Your task to perform on an android device: Go to network settings Image 0: 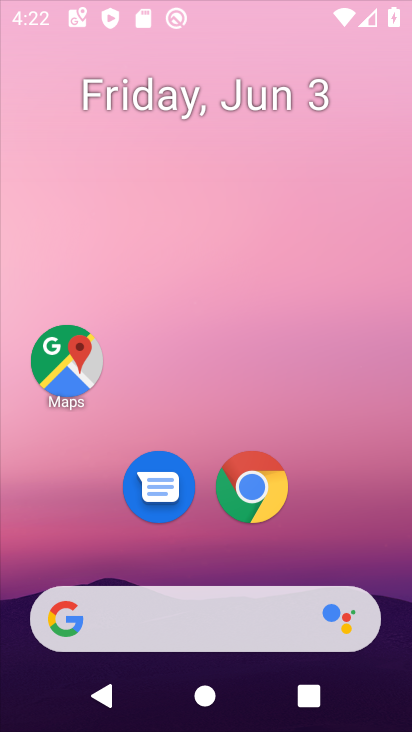
Step 0: click (244, 9)
Your task to perform on an android device: Go to network settings Image 1: 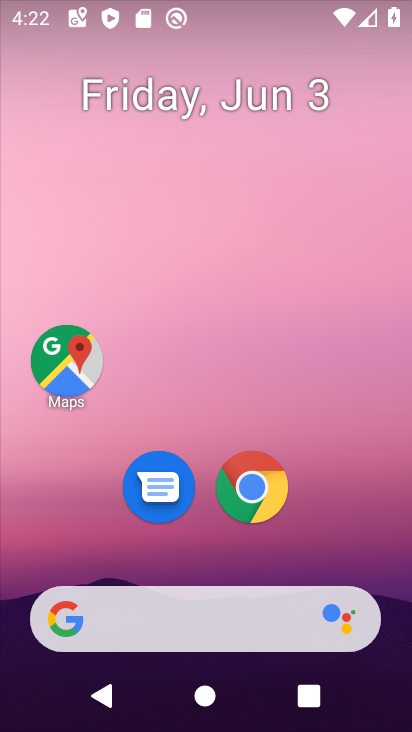
Step 1: drag from (192, 552) to (277, 165)
Your task to perform on an android device: Go to network settings Image 2: 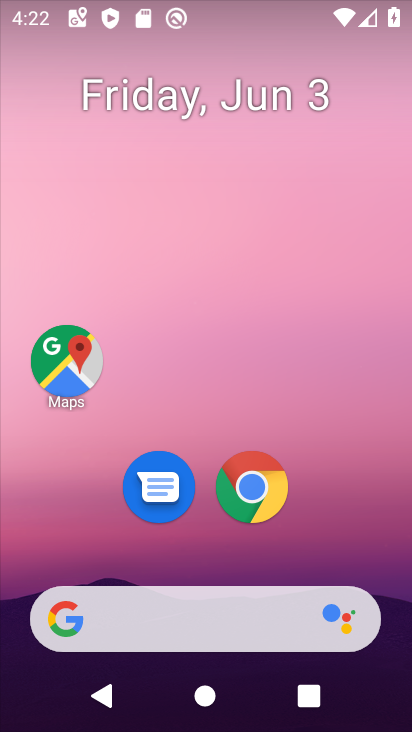
Step 2: drag from (230, 536) to (273, 169)
Your task to perform on an android device: Go to network settings Image 3: 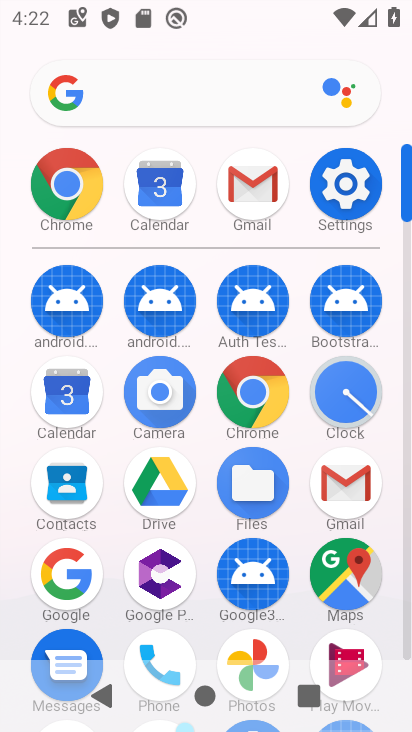
Step 3: click (353, 191)
Your task to perform on an android device: Go to network settings Image 4: 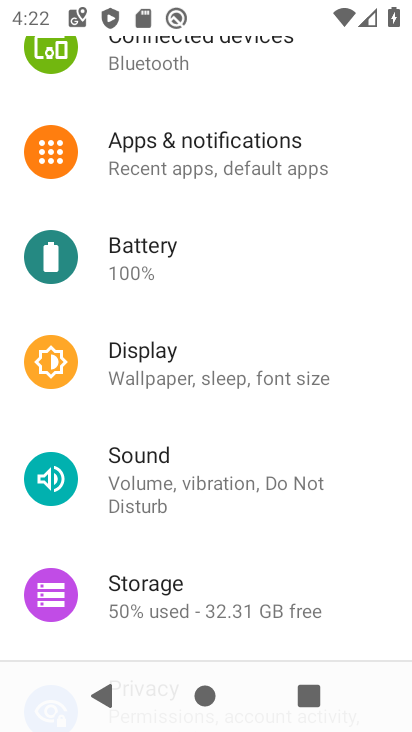
Step 4: drag from (192, 173) to (245, 621)
Your task to perform on an android device: Go to network settings Image 5: 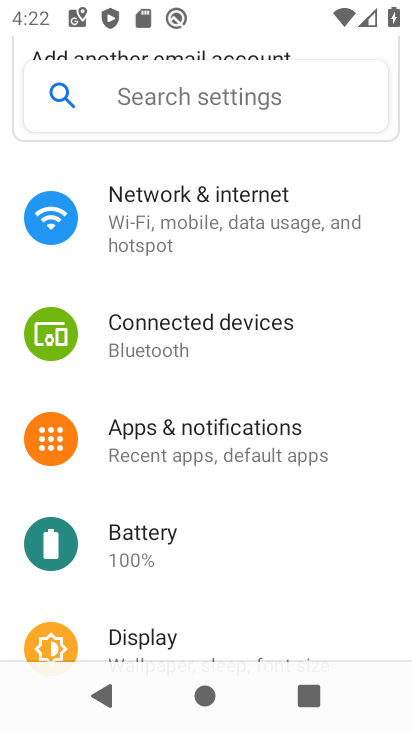
Step 5: click (152, 237)
Your task to perform on an android device: Go to network settings Image 6: 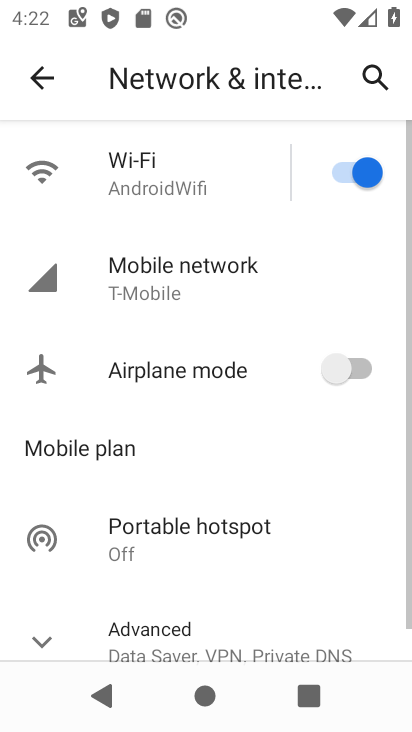
Step 6: drag from (243, 572) to (299, 83)
Your task to perform on an android device: Go to network settings Image 7: 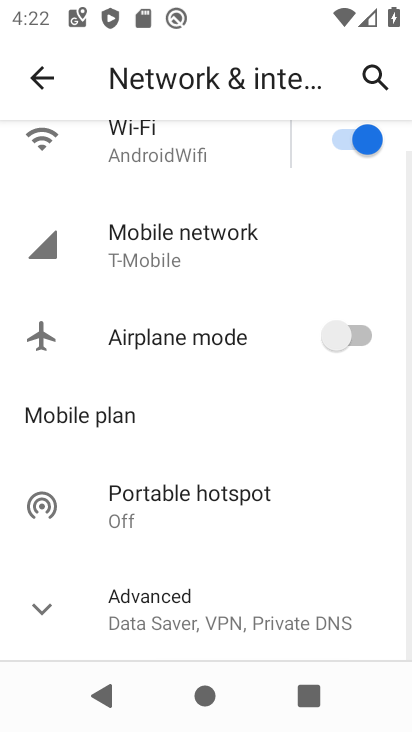
Step 7: drag from (251, 560) to (333, 130)
Your task to perform on an android device: Go to network settings Image 8: 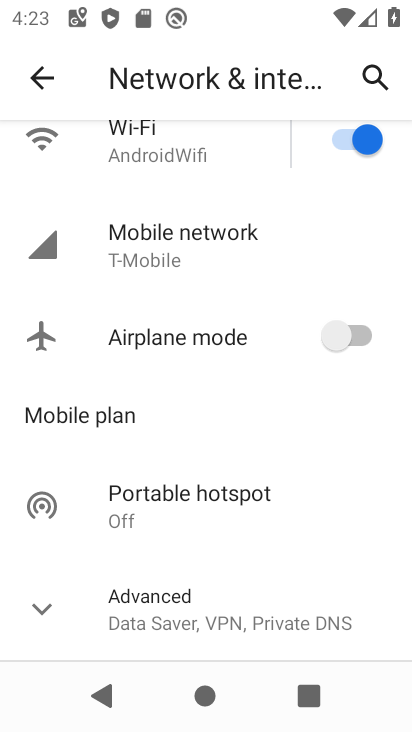
Step 8: click (357, 214)
Your task to perform on an android device: Go to network settings Image 9: 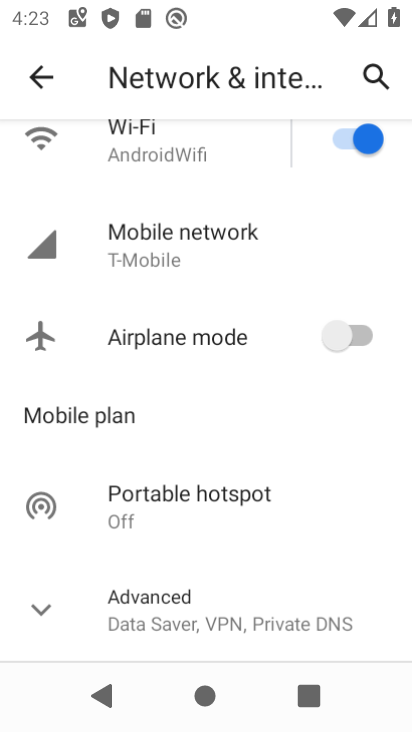
Step 9: task complete